Your task to perform on an android device: Go to settings Image 0: 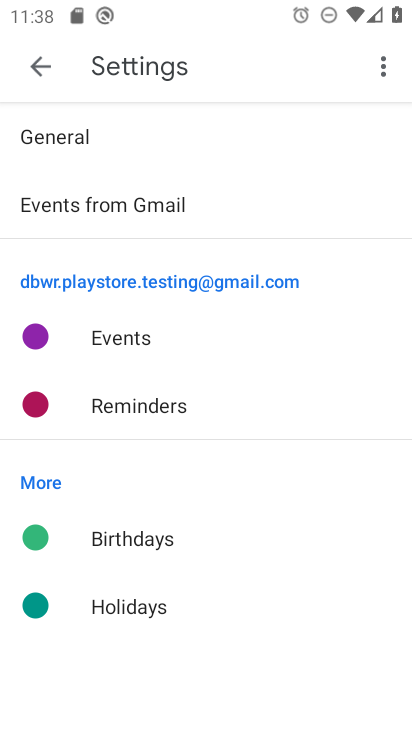
Step 0: press home button
Your task to perform on an android device: Go to settings Image 1: 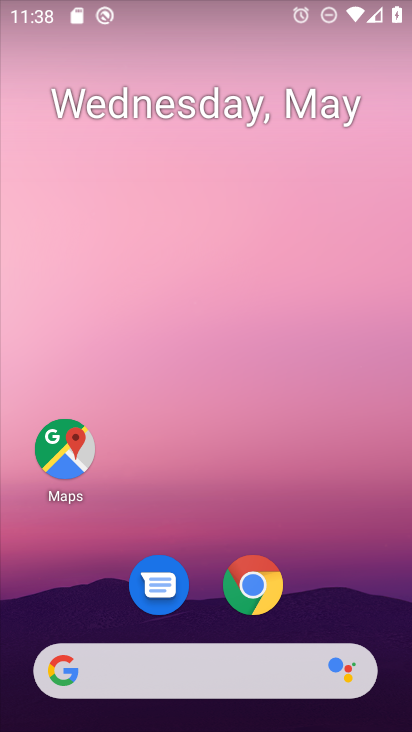
Step 1: drag from (215, 451) to (231, 53)
Your task to perform on an android device: Go to settings Image 2: 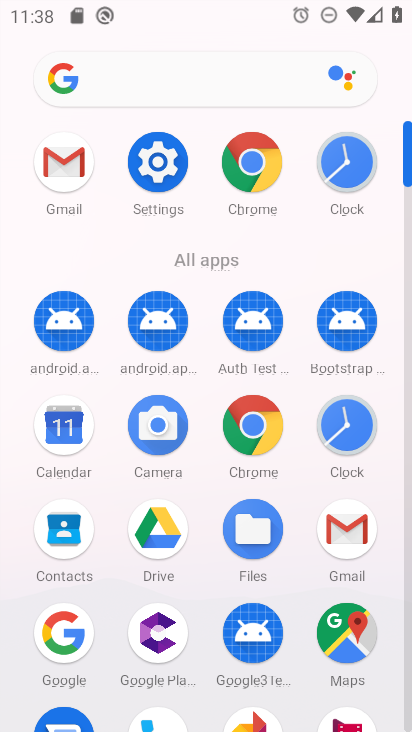
Step 2: click (172, 151)
Your task to perform on an android device: Go to settings Image 3: 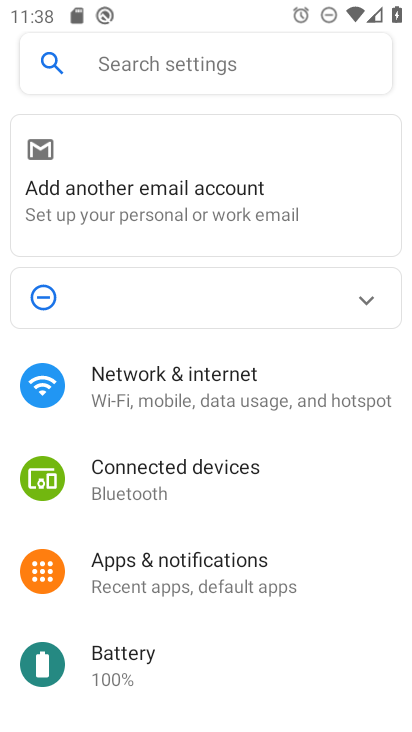
Step 3: task complete